Your task to perform on an android device: Set the phone to "Do not disturb". Image 0: 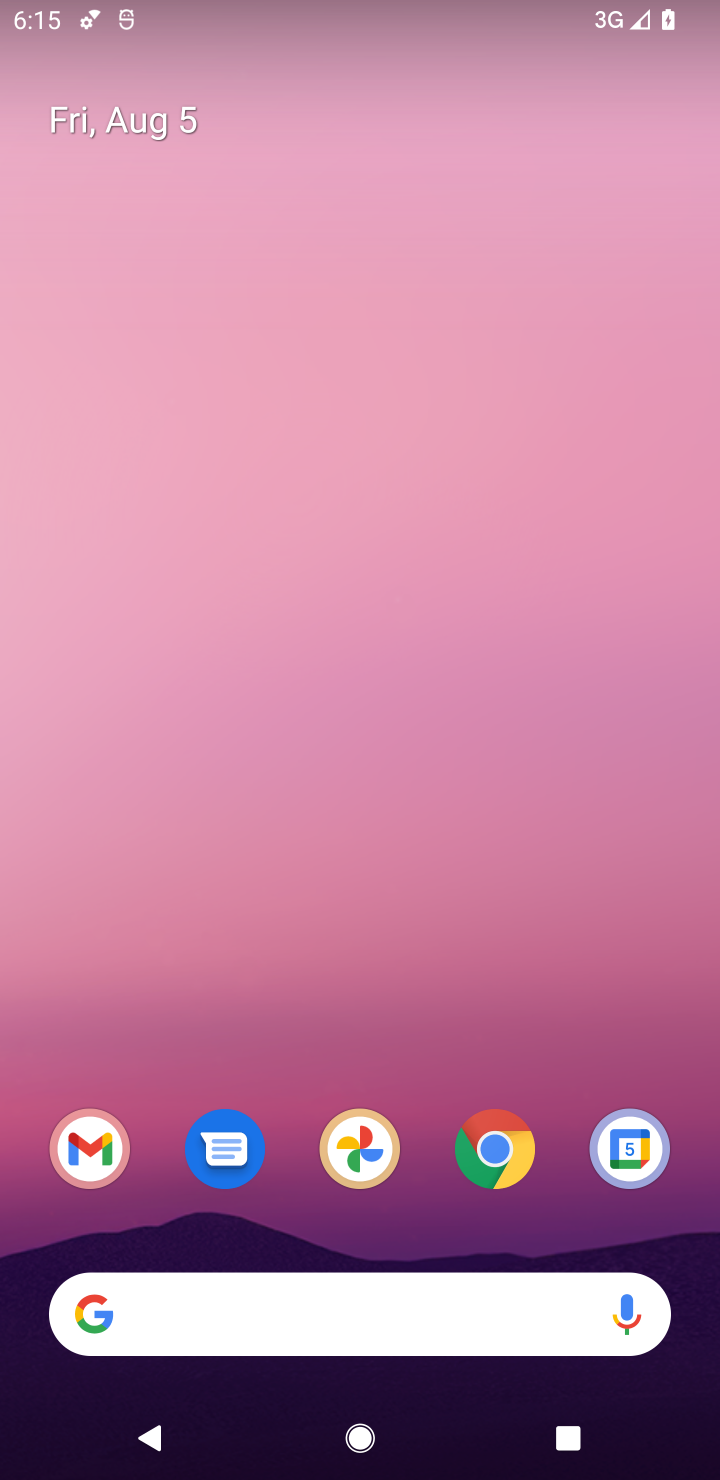
Step 0: drag from (270, 13) to (213, 910)
Your task to perform on an android device: Set the phone to "Do not disturb". Image 1: 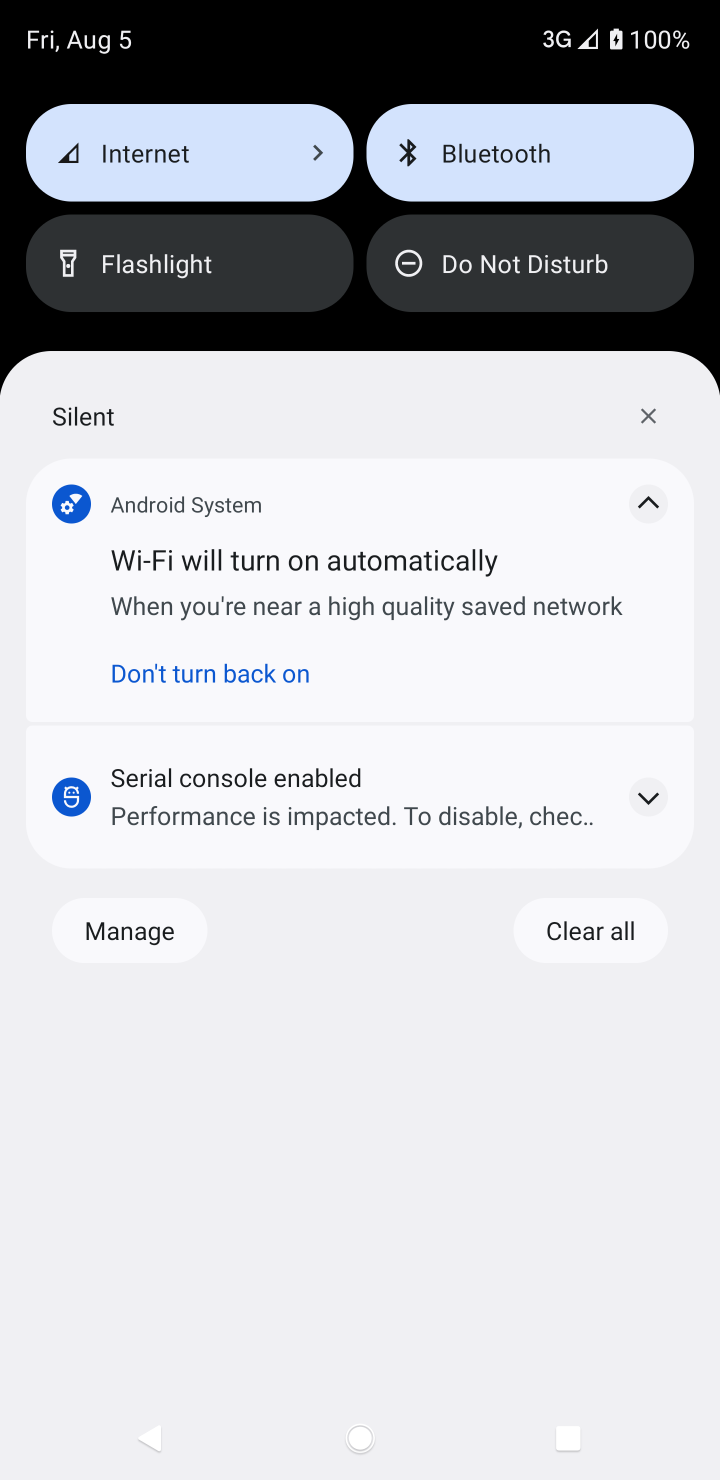
Step 1: click (439, 275)
Your task to perform on an android device: Set the phone to "Do not disturb". Image 2: 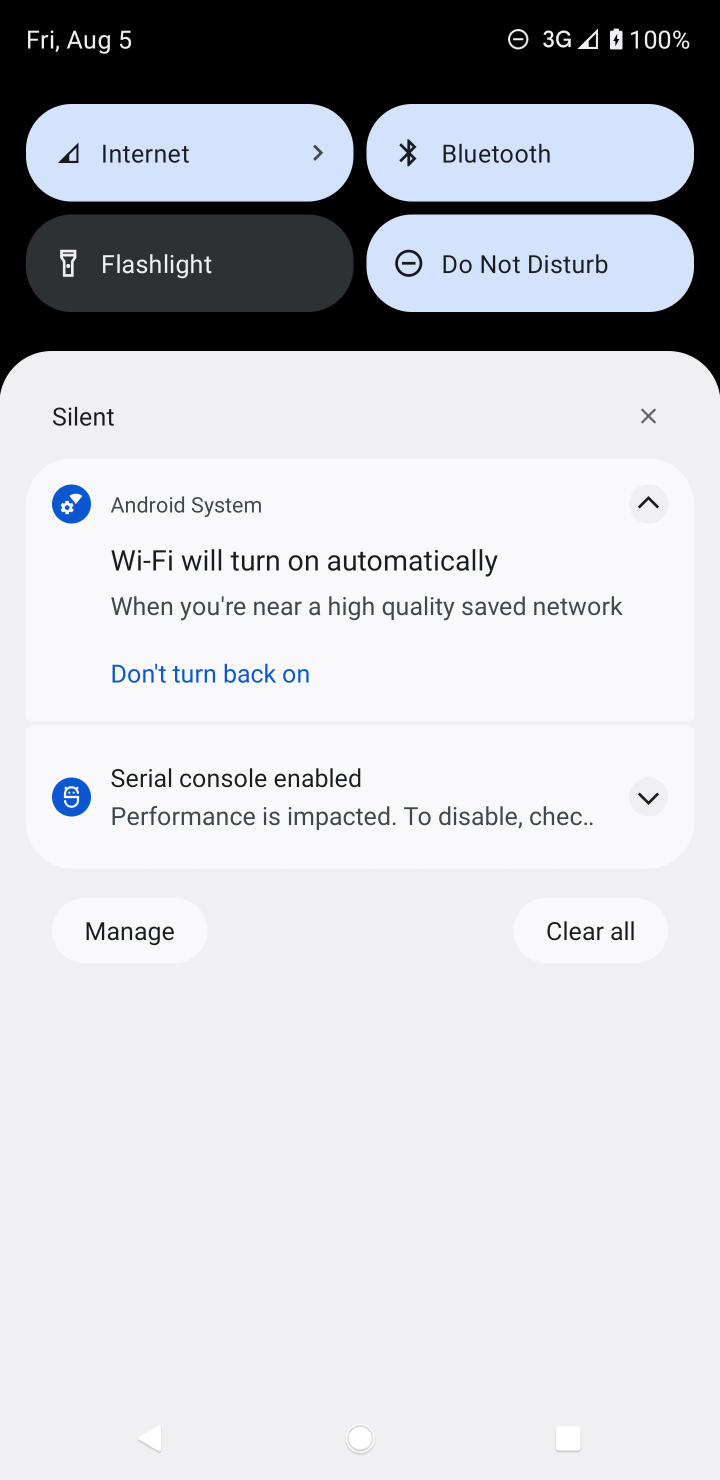
Step 2: task complete